Your task to perform on an android device: Do I have any events tomorrow? Image 0: 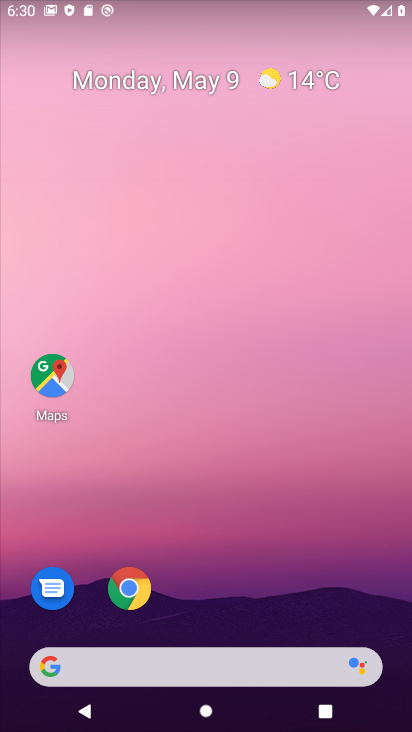
Step 0: drag from (290, 619) to (253, 122)
Your task to perform on an android device: Do I have any events tomorrow? Image 1: 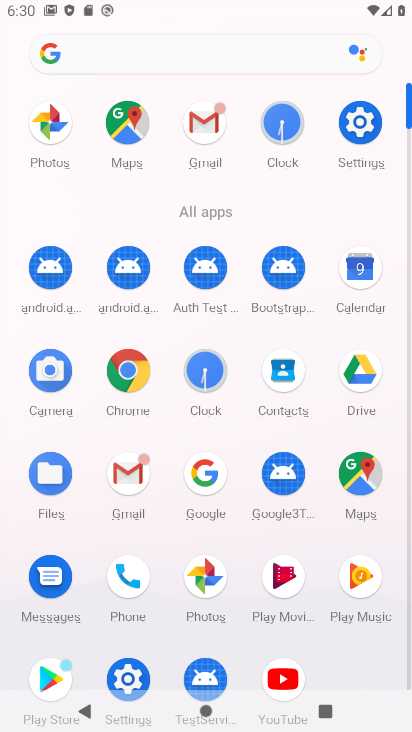
Step 1: click (365, 276)
Your task to perform on an android device: Do I have any events tomorrow? Image 2: 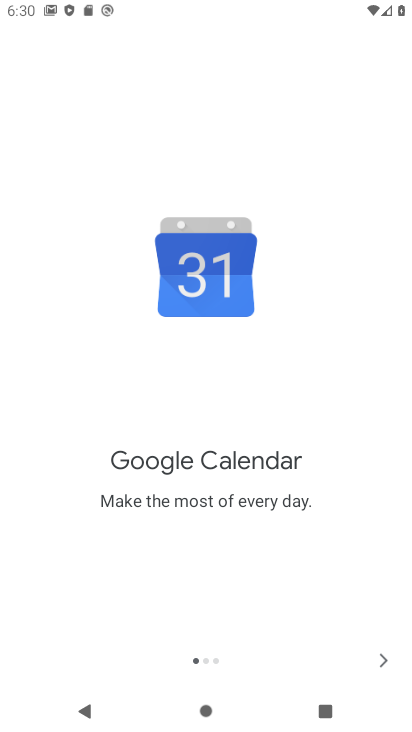
Step 2: click (383, 666)
Your task to perform on an android device: Do I have any events tomorrow? Image 3: 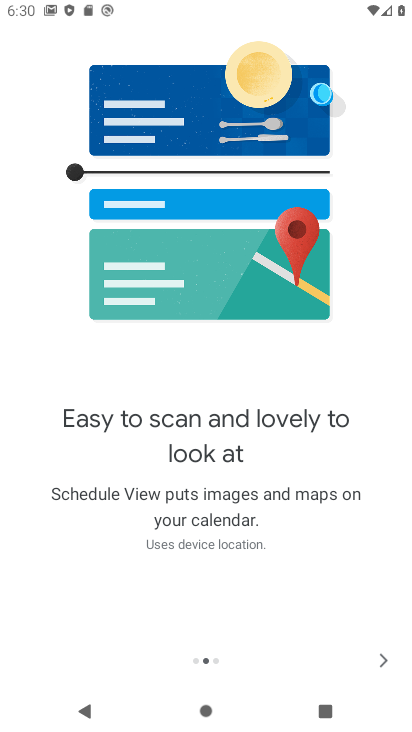
Step 3: click (383, 666)
Your task to perform on an android device: Do I have any events tomorrow? Image 4: 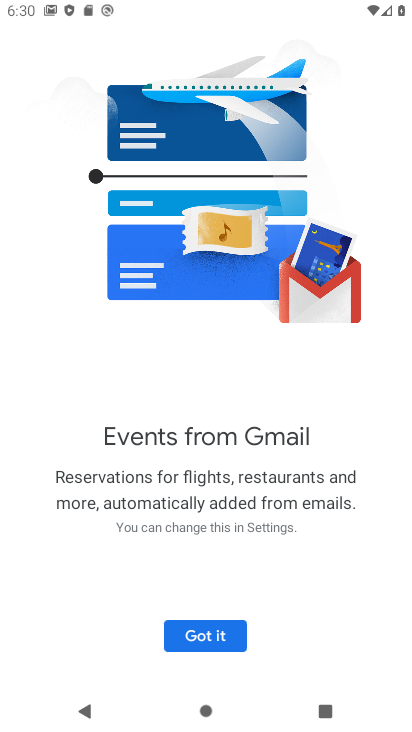
Step 4: click (217, 646)
Your task to perform on an android device: Do I have any events tomorrow? Image 5: 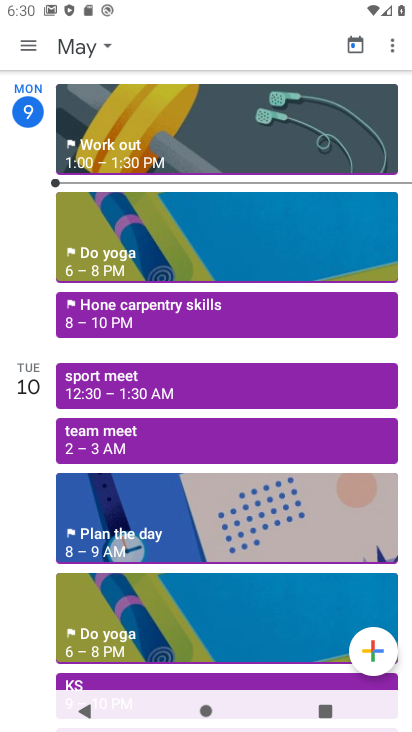
Step 5: drag from (45, 637) to (116, 264)
Your task to perform on an android device: Do I have any events tomorrow? Image 6: 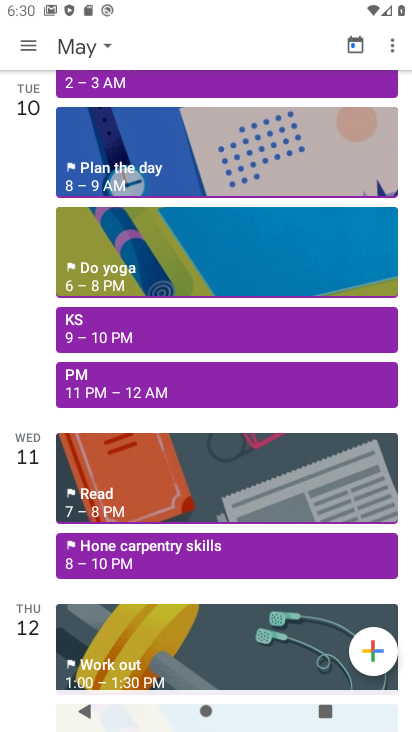
Step 6: click (129, 491)
Your task to perform on an android device: Do I have any events tomorrow? Image 7: 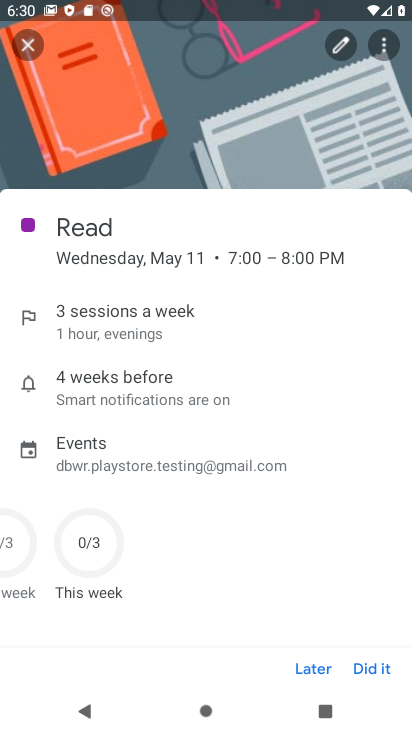
Step 7: task complete